Your task to perform on an android device: Go to accessibility settings Image 0: 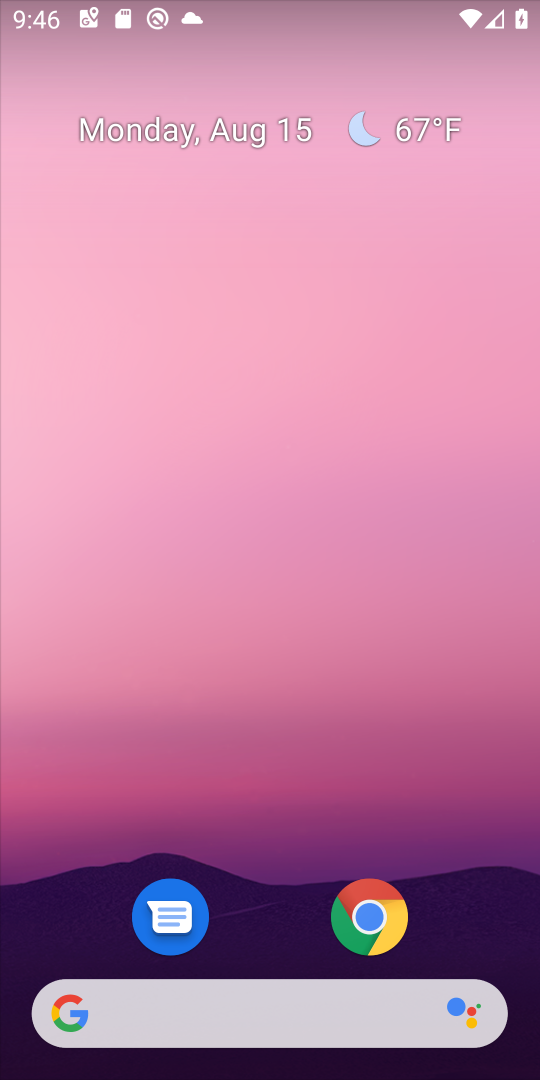
Step 0: drag from (272, 894) to (340, 0)
Your task to perform on an android device: Go to accessibility settings Image 1: 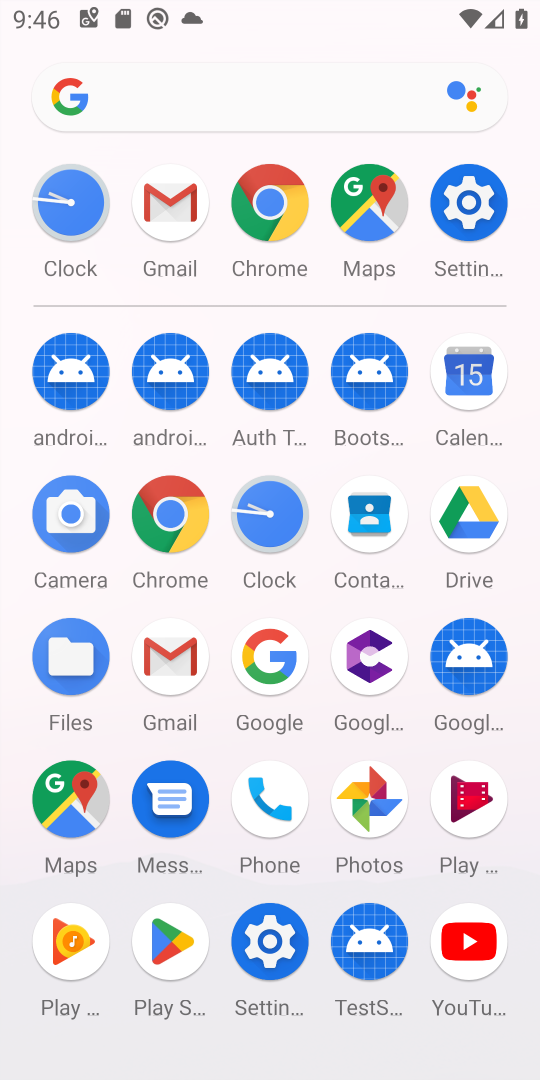
Step 1: click (467, 211)
Your task to perform on an android device: Go to accessibility settings Image 2: 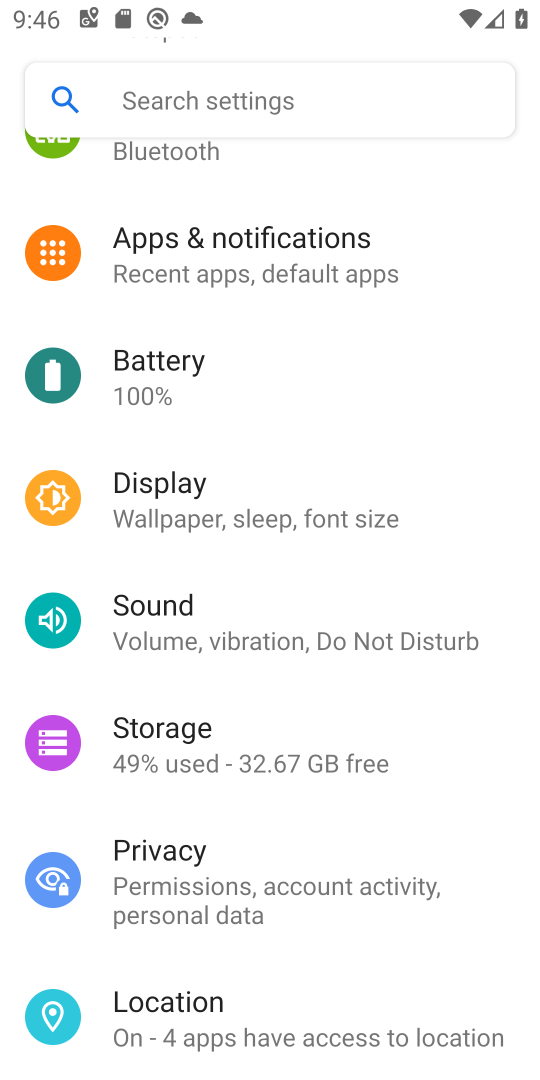
Step 2: drag from (304, 793) to (330, 93)
Your task to perform on an android device: Go to accessibility settings Image 3: 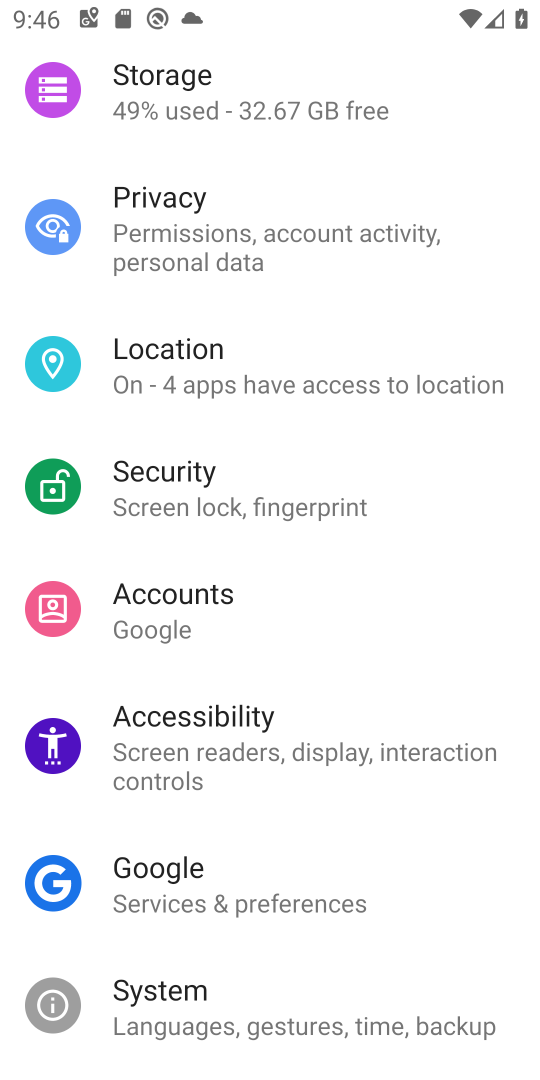
Step 3: click (263, 751)
Your task to perform on an android device: Go to accessibility settings Image 4: 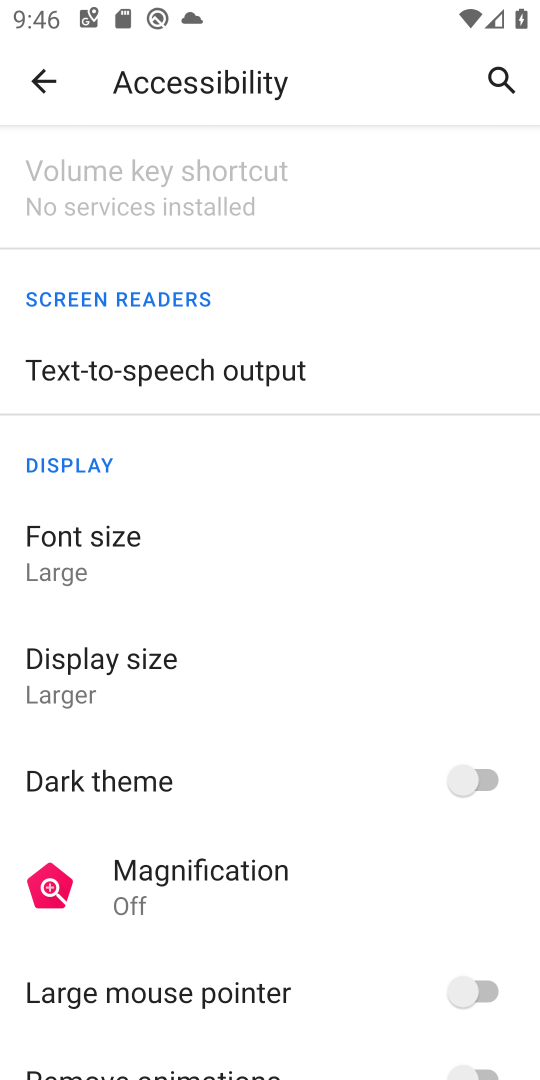
Step 4: task complete